Your task to perform on an android device: uninstall "Microsoft Excel" Image 0: 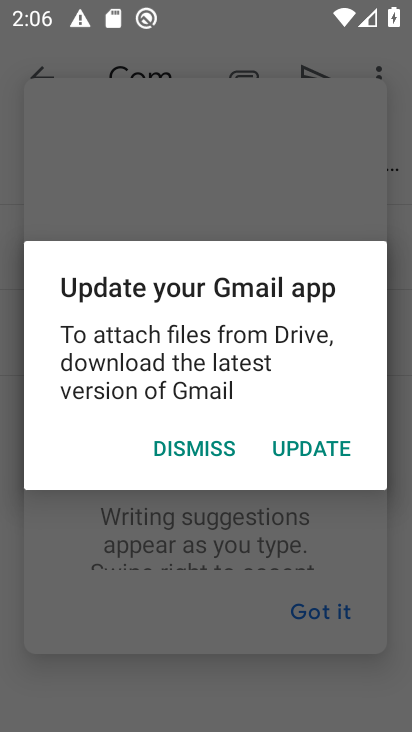
Step 0: press home button
Your task to perform on an android device: uninstall "Microsoft Excel" Image 1: 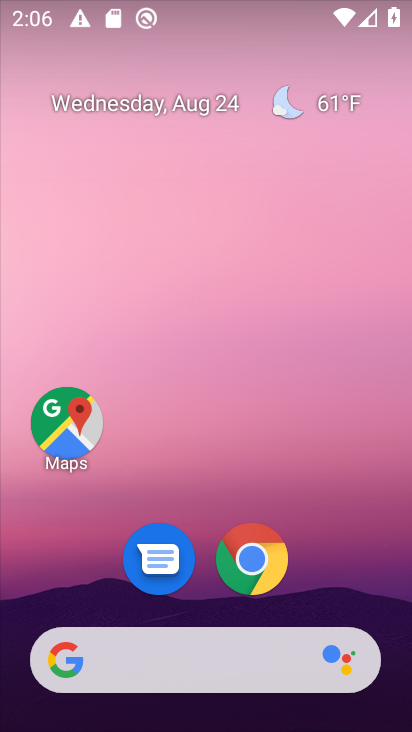
Step 1: drag from (215, 548) to (272, 61)
Your task to perform on an android device: uninstall "Microsoft Excel" Image 2: 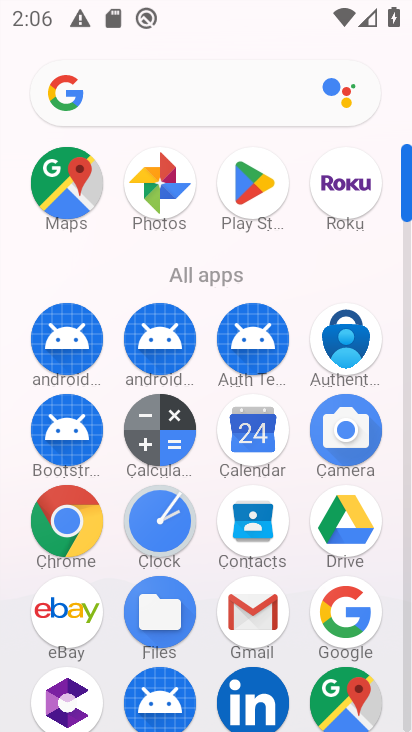
Step 2: click (256, 180)
Your task to perform on an android device: uninstall "Microsoft Excel" Image 3: 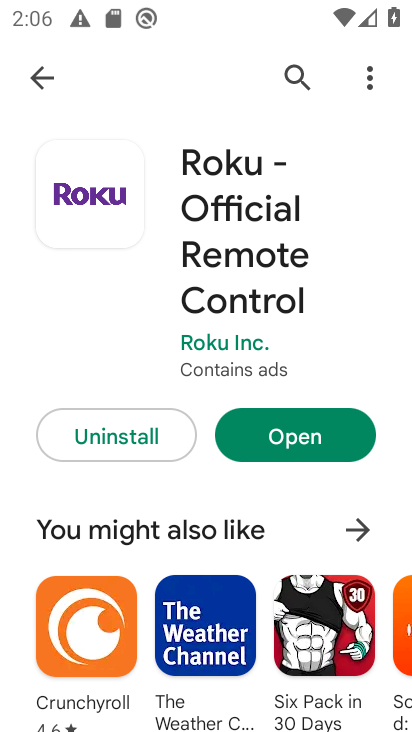
Step 3: click (288, 75)
Your task to perform on an android device: uninstall "Microsoft Excel" Image 4: 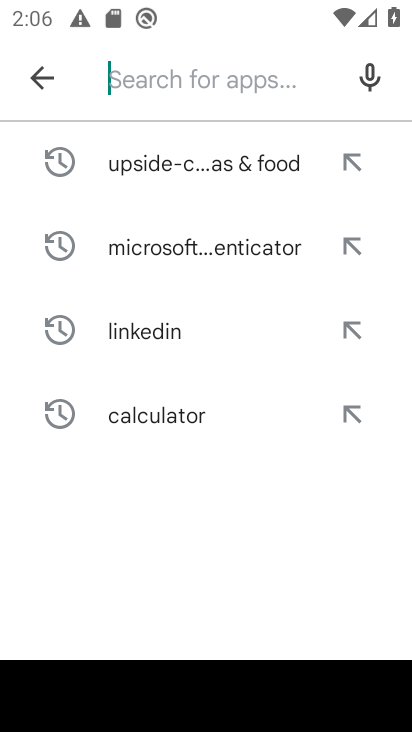
Step 4: type "Microsoft Excel"
Your task to perform on an android device: uninstall "Microsoft Excel" Image 5: 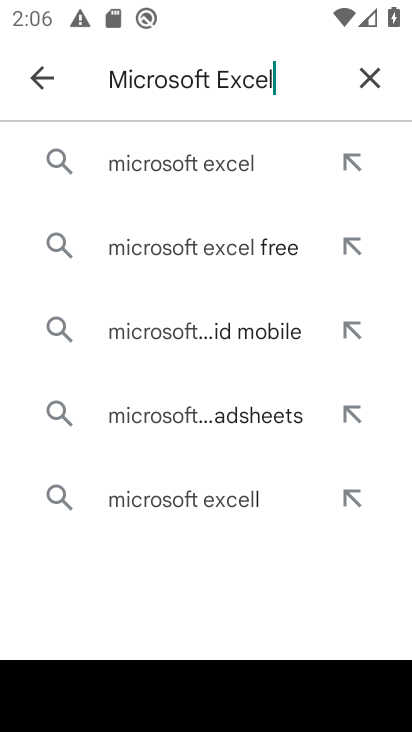
Step 5: click (151, 167)
Your task to perform on an android device: uninstall "Microsoft Excel" Image 6: 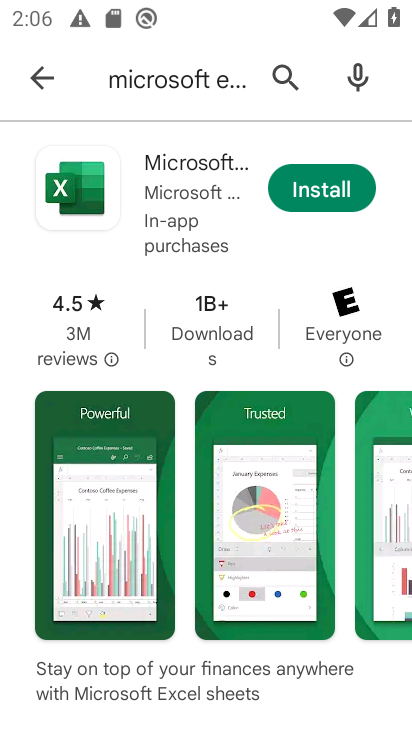
Step 6: task complete